Your task to perform on an android device: Add "usb-b" to the cart on newegg Image 0: 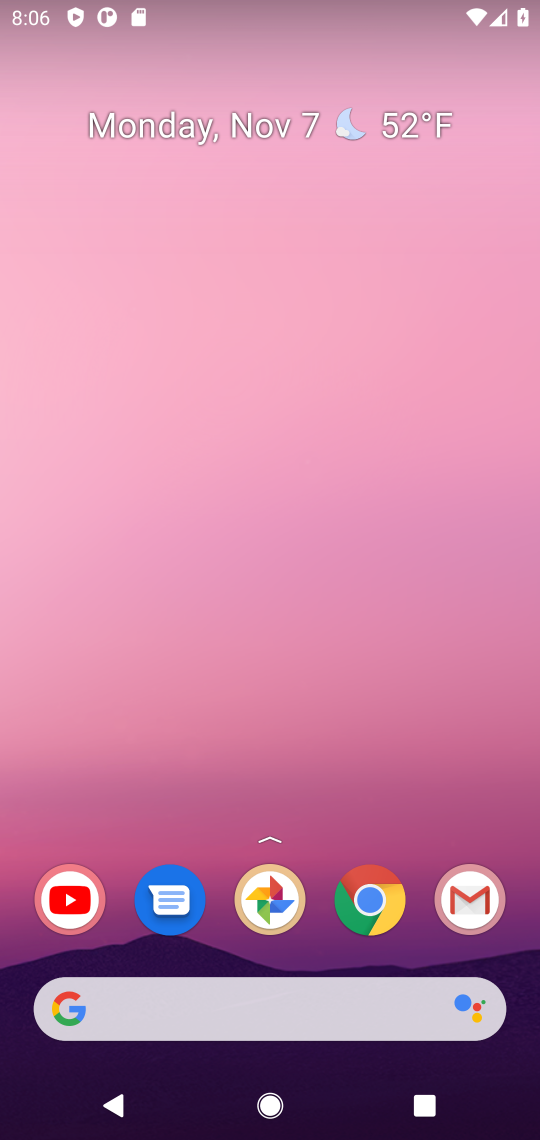
Step 0: click (379, 1022)
Your task to perform on an android device: Add "usb-b" to the cart on newegg Image 1: 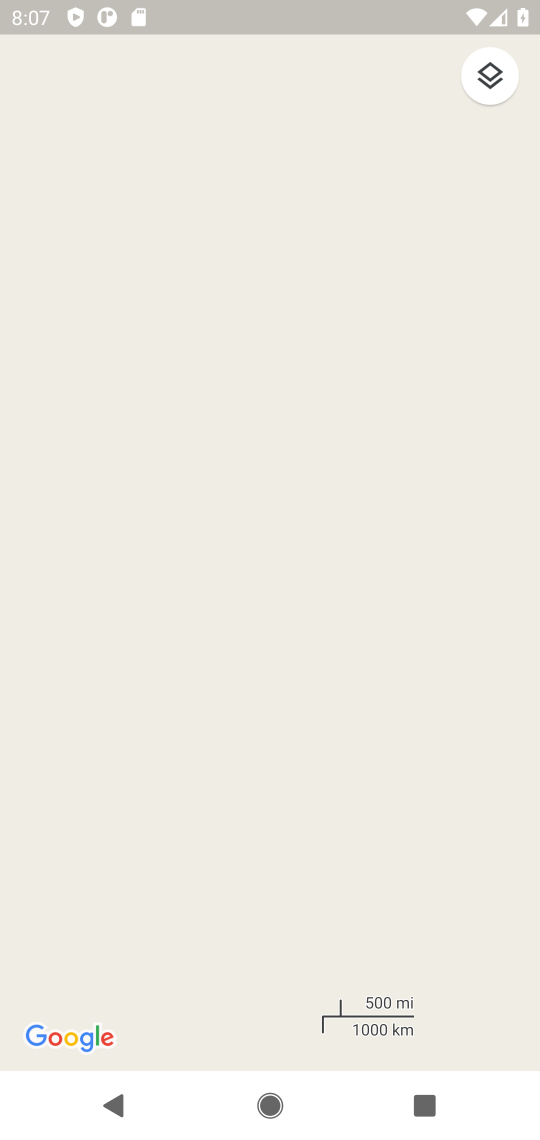
Step 1: press home button
Your task to perform on an android device: Add "usb-b" to the cart on newegg Image 2: 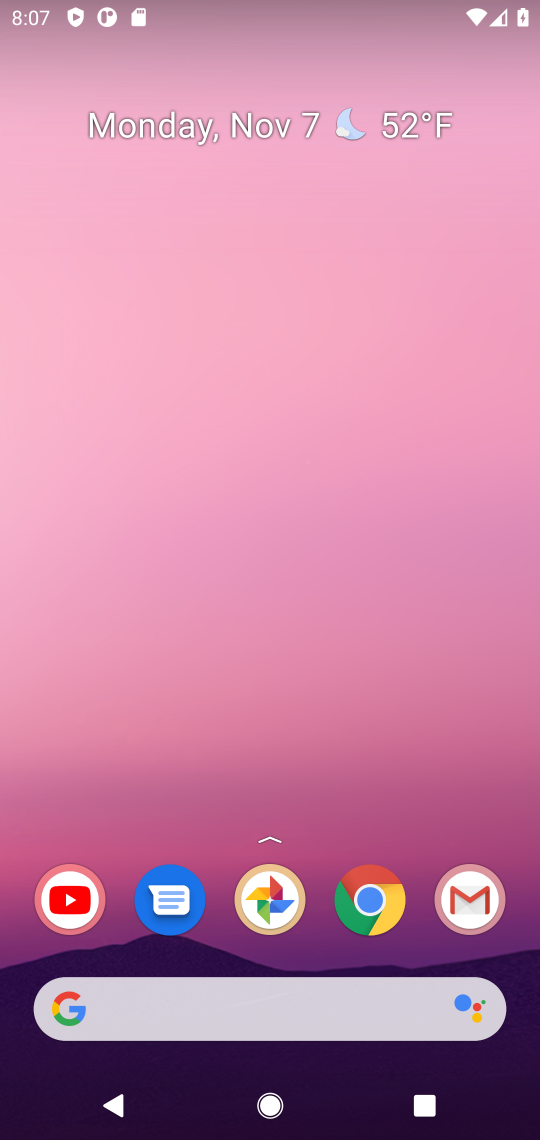
Step 2: click (242, 1023)
Your task to perform on an android device: Add "usb-b" to the cart on newegg Image 3: 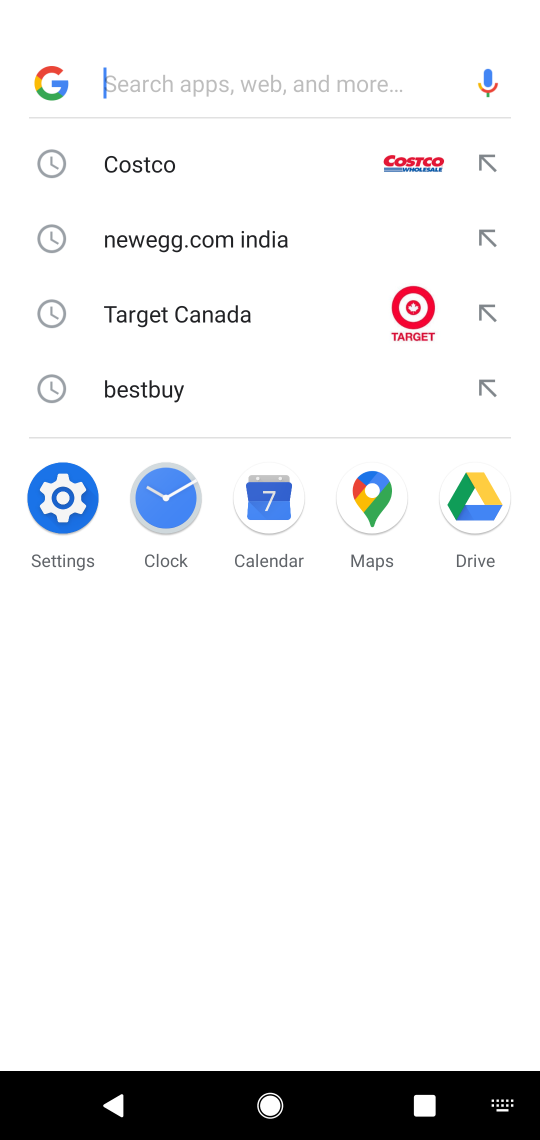
Step 3: click (211, 234)
Your task to perform on an android device: Add "usb-b" to the cart on newegg Image 4: 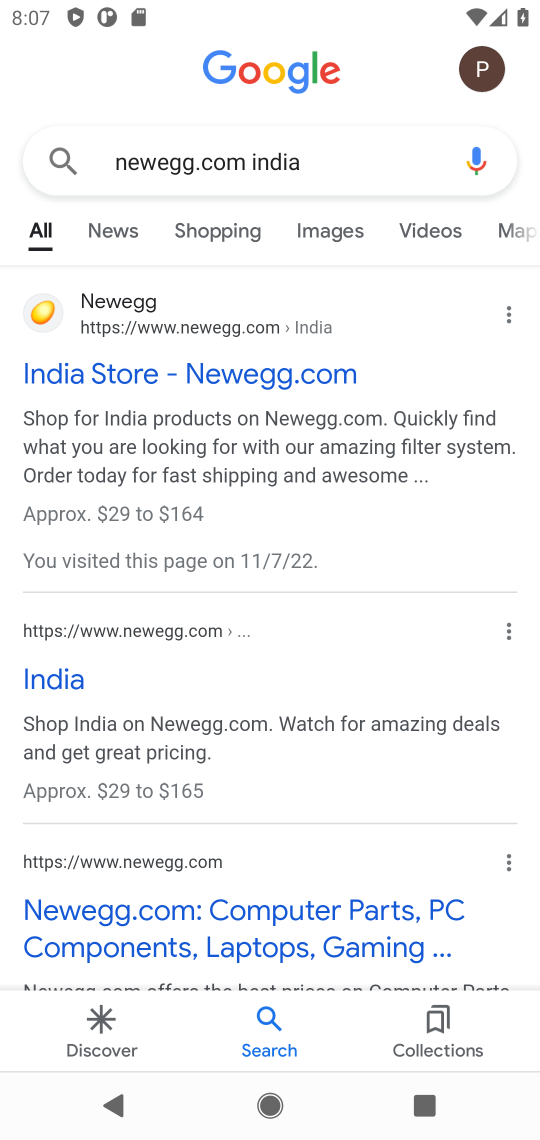
Step 4: click (229, 355)
Your task to perform on an android device: Add "usb-b" to the cart on newegg Image 5: 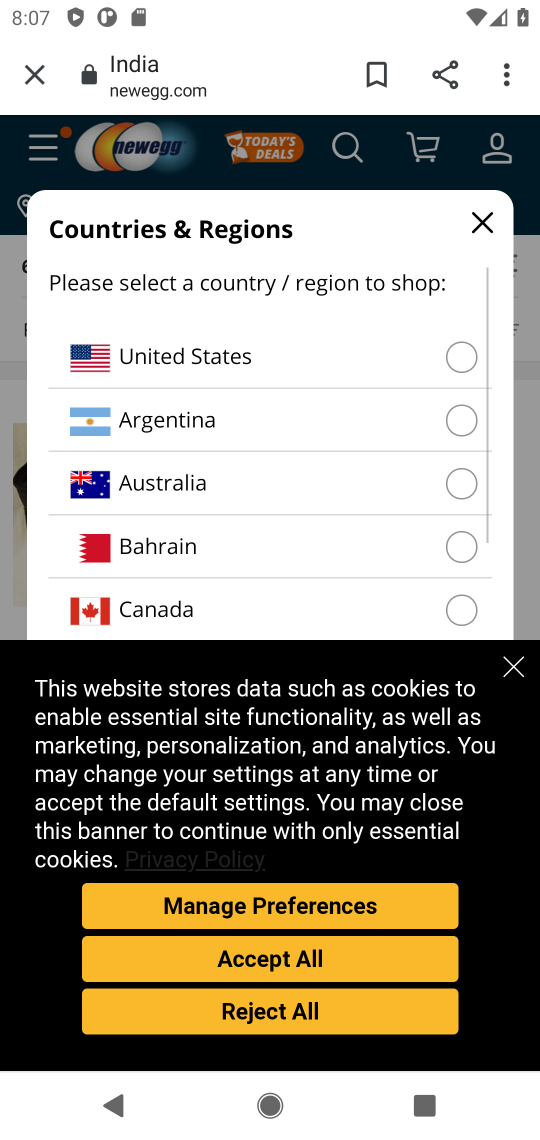
Step 5: click (236, 374)
Your task to perform on an android device: Add "usb-b" to the cart on newegg Image 6: 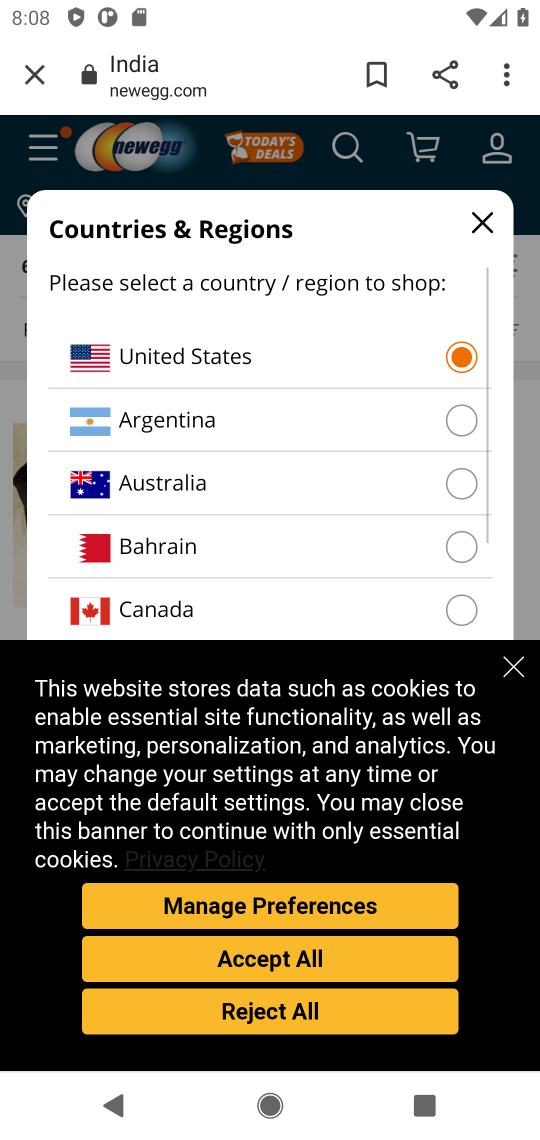
Step 6: click (421, 964)
Your task to perform on an android device: Add "usb-b" to the cart on newegg Image 7: 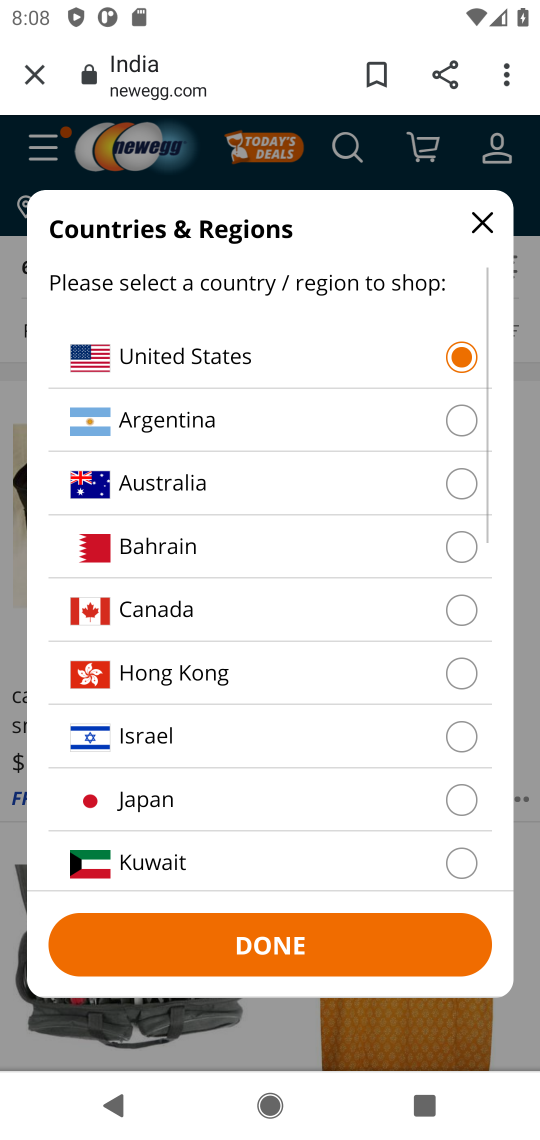
Step 7: click (218, 942)
Your task to perform on an android device: Add "usb-b" to the cart on newegg Image 8: 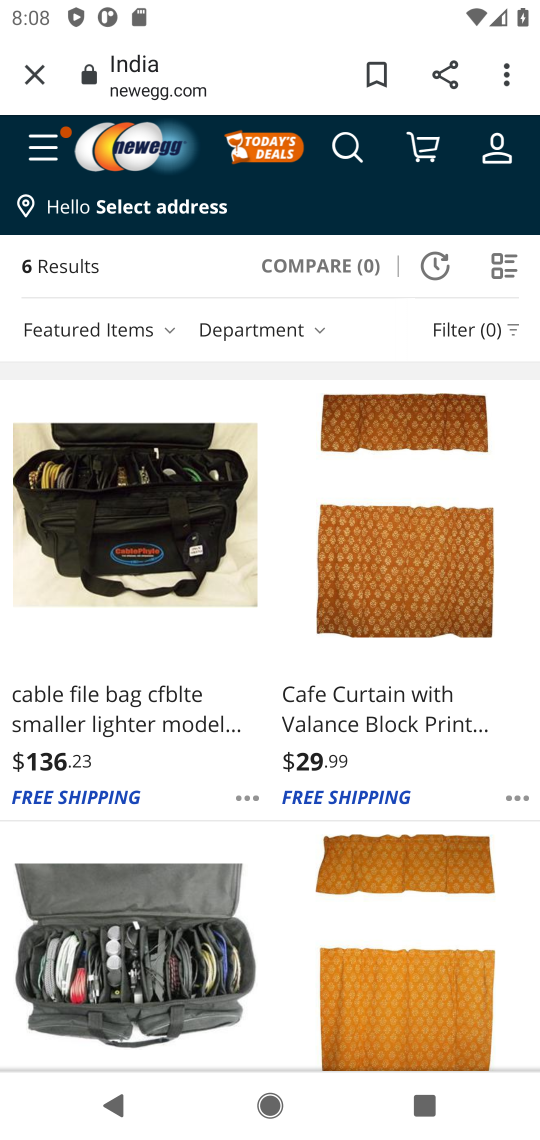
Step 8: task complete